Your task to perform on an android device: Open sound settings Image 0: 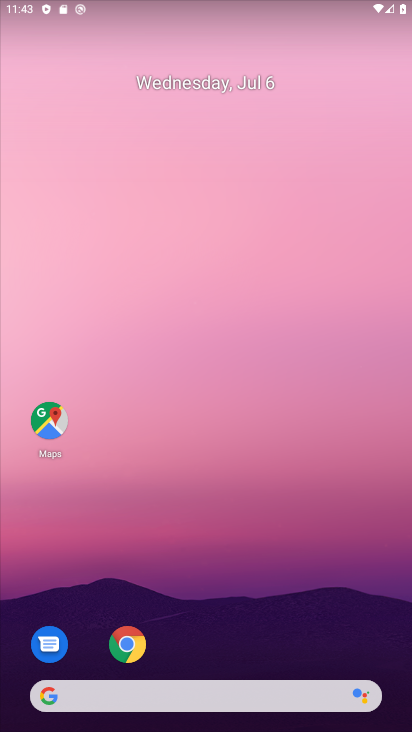
Step 0: drag from (206, 693) to (187, 117)
Your task to perform on an android device: Open sound settings Image 1: 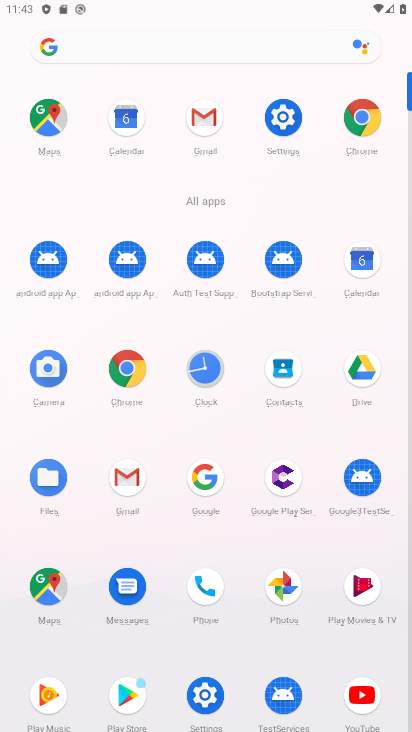
Step 1: click (277, 125)
Your task to perform on an android device: Open sound settings Image 2: 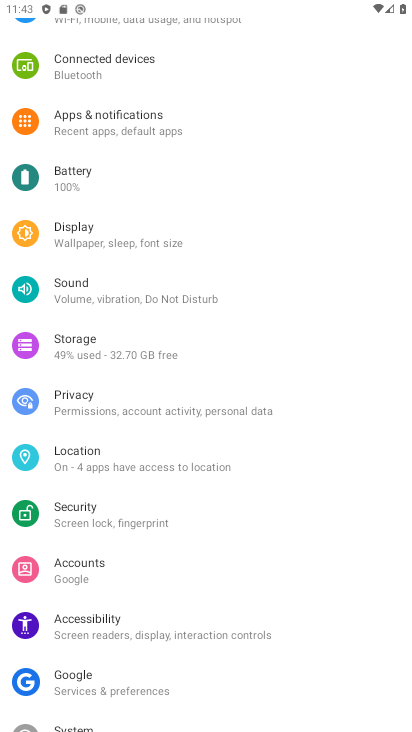
Step 2: click (109, 296)
Your task to perform on an android device: Open sound settings Image 3: 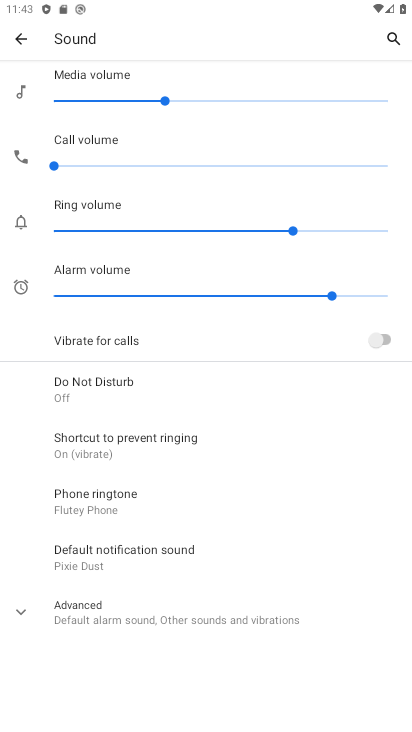
Step 3: task complete